Your task to perform on an android device: turn on priority inbox in the gmail app Image 0: 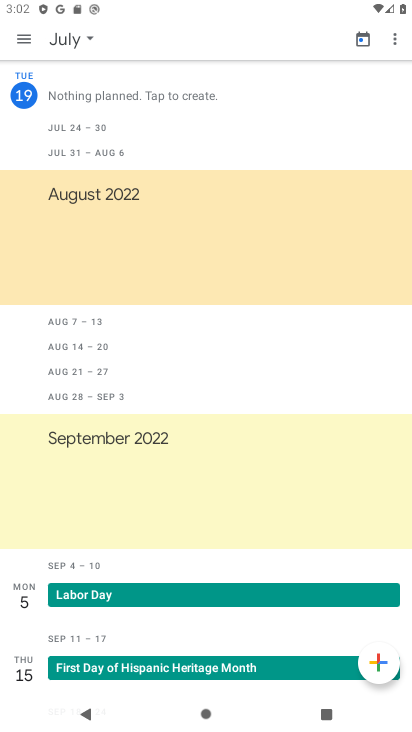
Step 0: press home button
Your task to perform on an android device: turn on priority inbox in the gmail app Image 1: 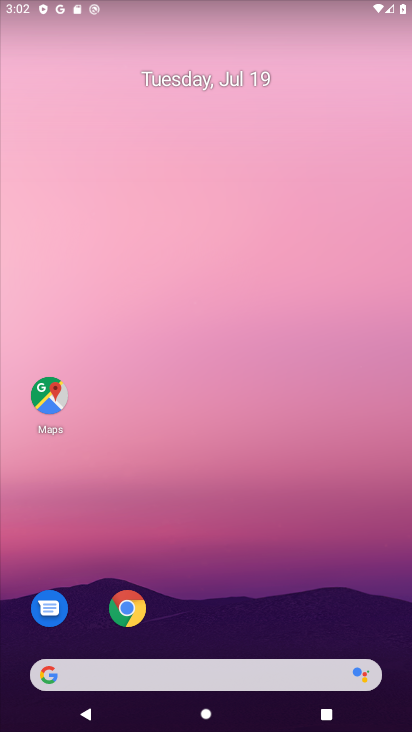
Step 1: drag from (316, 619) to (268, 163)
Your task to perform on an android device: turn on priority inbox in the gmail app Image 2: 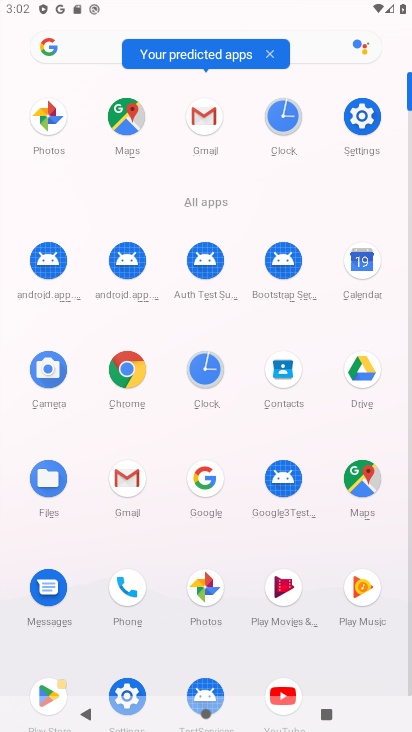
Step 2: click (201, 125)
Your task to perform on an android device: turn on priority inbox in the gmail app Image 3: 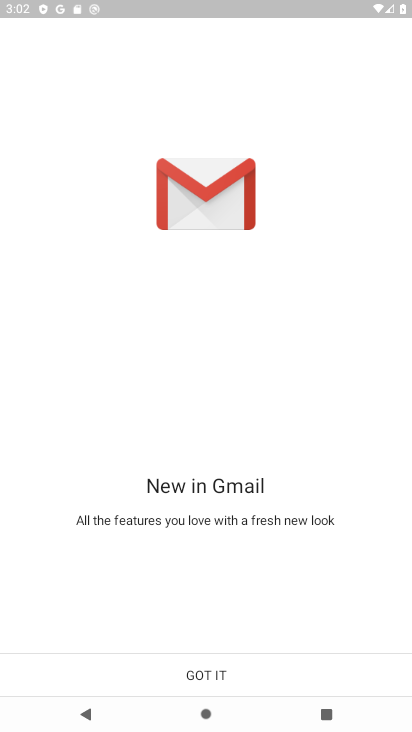
Step 3: click (221, 684)
Your task to perform on an android device: turn on priority inbox in the gmail app Image 4: 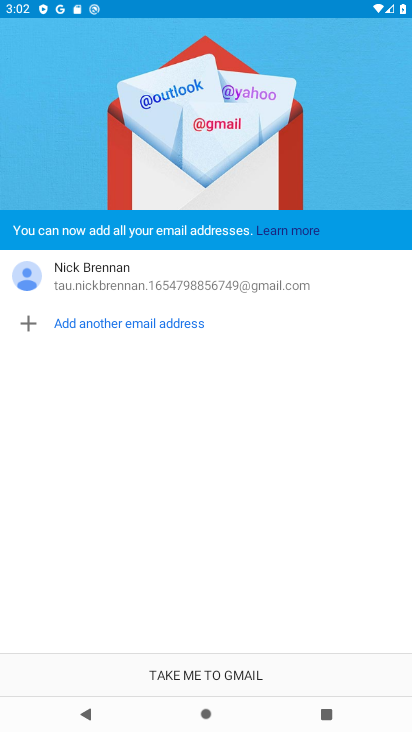
Step 4: click (213, 678)
Your task to perform on an android device: turn on priority inbox in the gmail app Image 5: 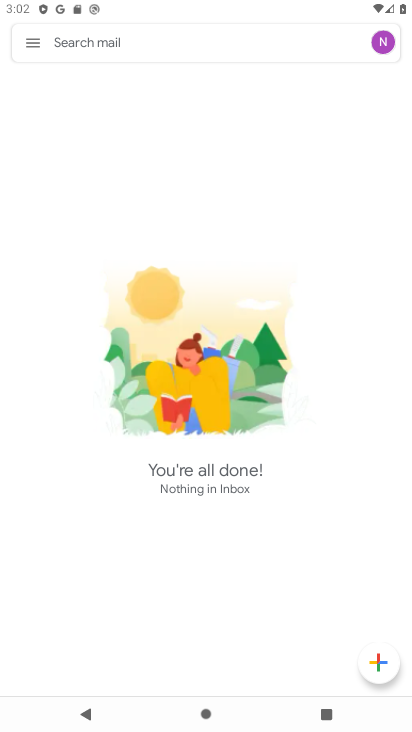
Step 5: drag from (213, 678) to (179, 570)
Your task to perform on an android device: turn on priority inbox in the gmail app Image 6: 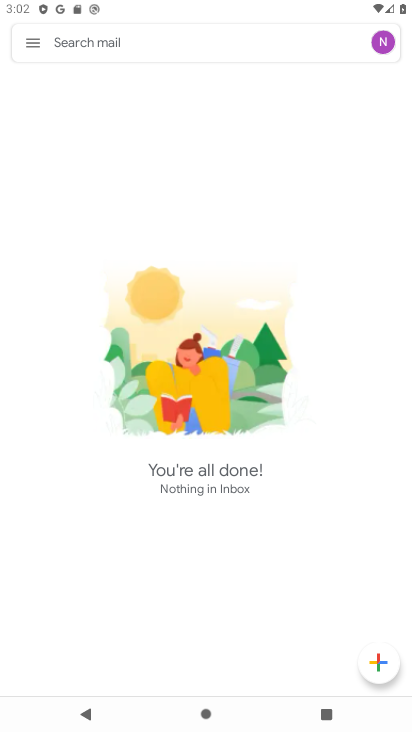
Step 6: drag from (200, 161) to (115, 120)
Your task to perform on an android device: turn on priority inbox in the gmail app Image 7: 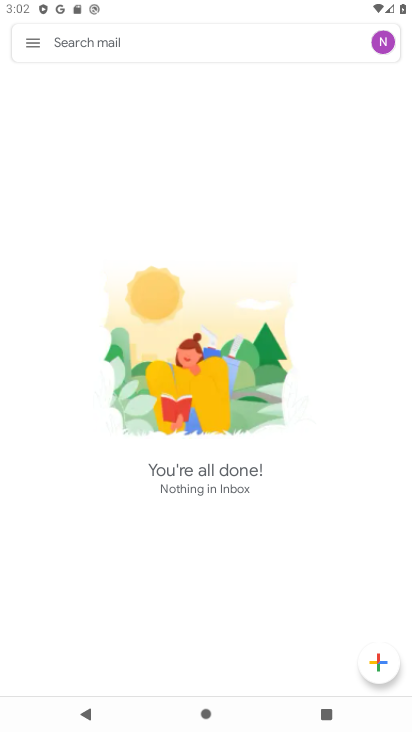
Step 7: click (40, 50)
Your task to perform on an android device: turn on priority inbox in the gmail app Image 8: 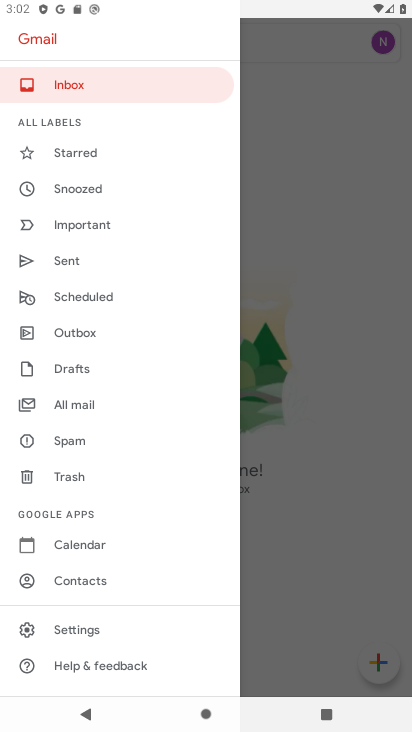
Step 8: click (128, 622)
Your task to perform on an android device: turn on priority inbox in the gmail app Image 9: 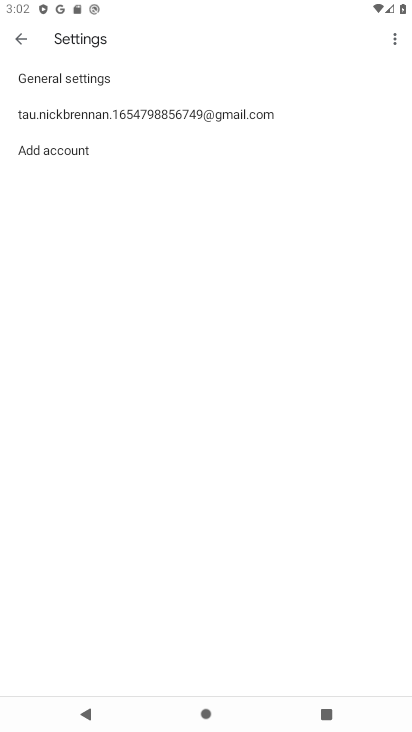
Step 9: click (272, 122)
Your task to perform on an android device: turn on priority inbox in the gmail app Image 10: 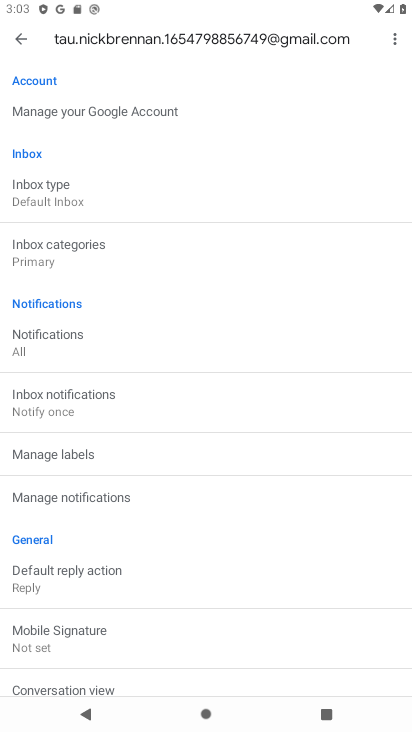
Step 10: click (223, 186)
Your task to perform on an android device: turn on priority inbox in the gmail app Image 11: 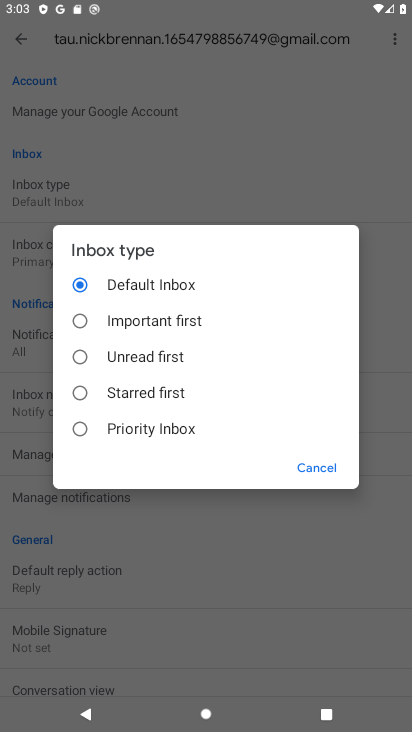
Step 11: click (147, 425)
Your task to perform on an android device: turn on priority inbox in the gmail app Image 12: 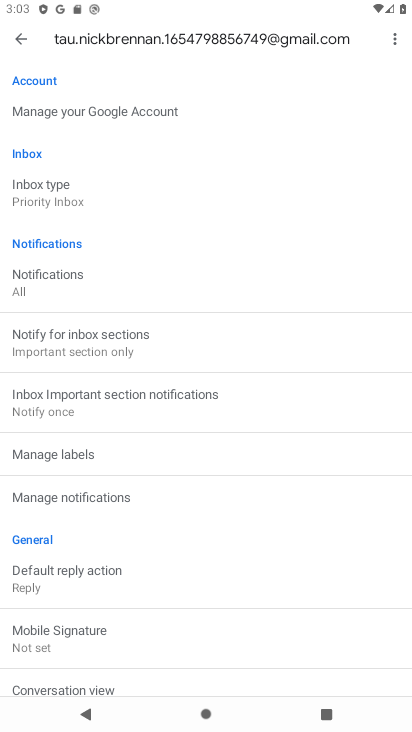
Step 12: task complete